Your task to perform on an android device: turn on sleep mode Image 0: 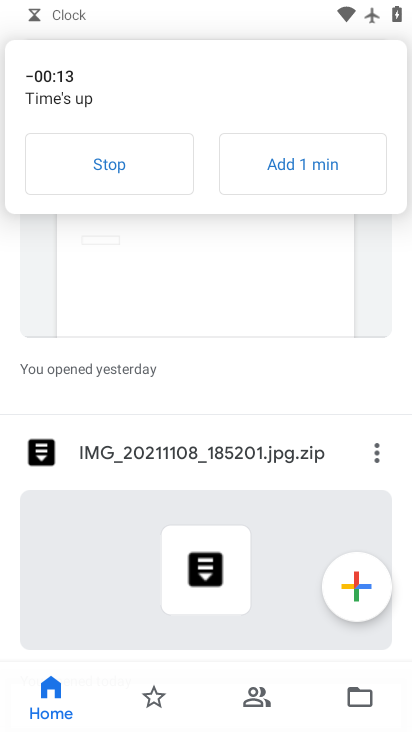
Step 0: press back button
Your task to perform on an android device: turn on sleep mode Image 1: 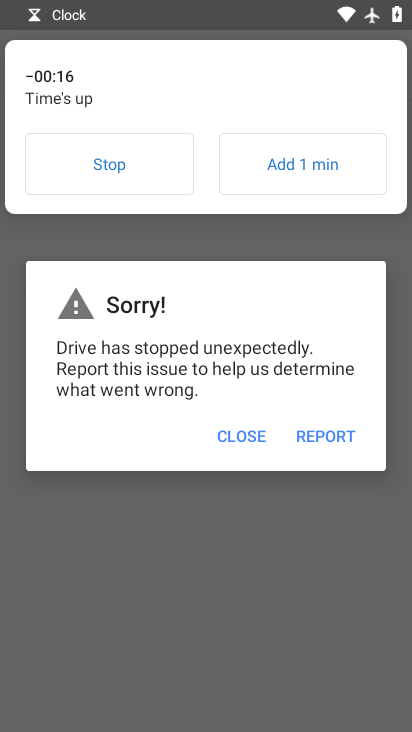
Step 1: press home button
Your task to perform on an android device: turn on sleep mode Image 2: 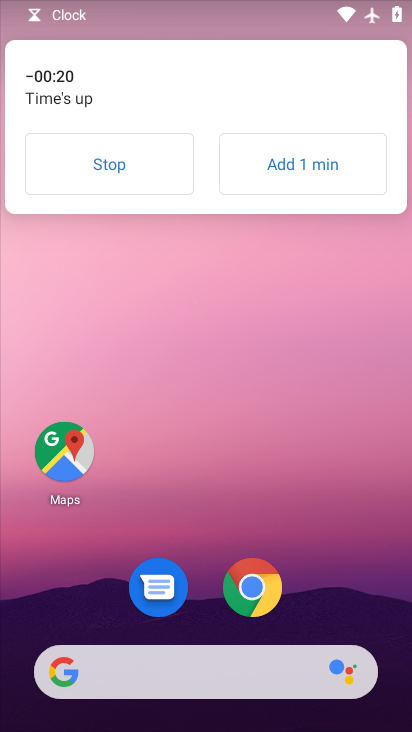
Step 2: click (96, 163)
Your task to perform on an android device: turn on sleep mode Image 3: 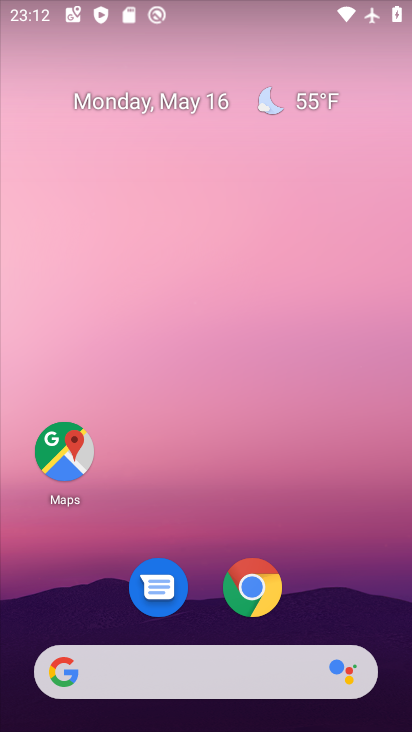
Step 3: drag from (342, 570) to (293, 15)
Your task to perform on an android device: turn on sleep mode Image 4: 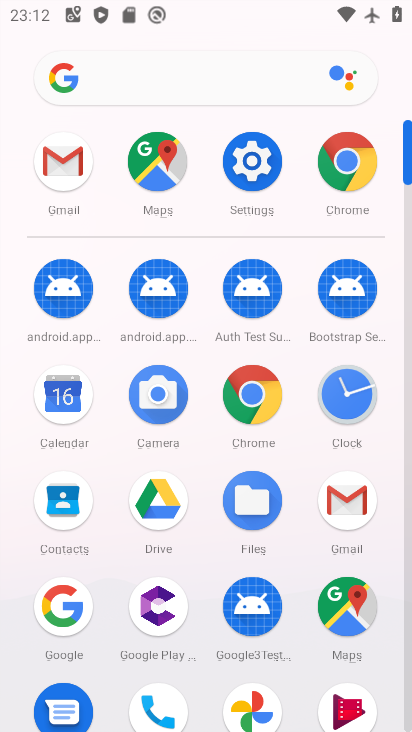
Step 4: click (254, 161)
Your task to perform on an android device: turn on sleep mode Image 5: 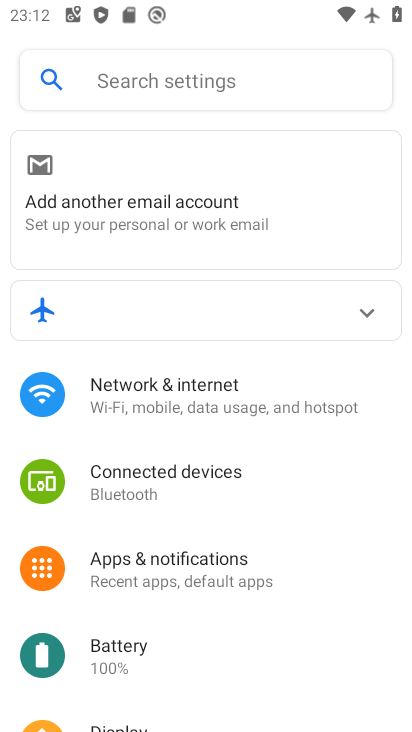
Step 5: drag from (274, 559) to (270, 178)
Your task to perform on an android device: turn on sleep mode Image 6: 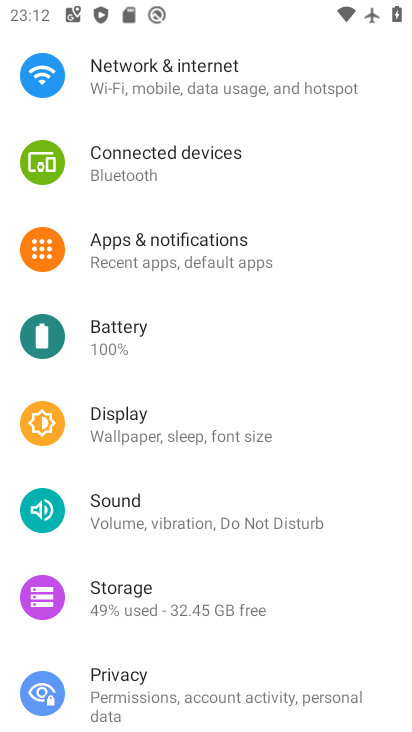
Step 6: click (216, 415)
Your task to perform on an android device: turn on sleep mode Image 7: 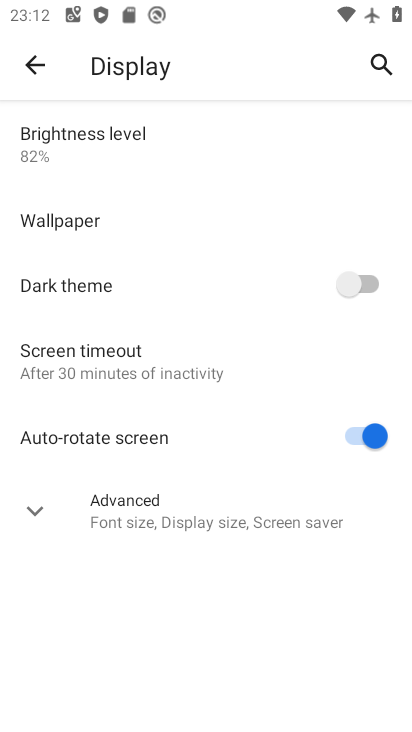
Step 7: click (81, 494)
Your task to perform on an android device: turn on sleep mode Image 8: 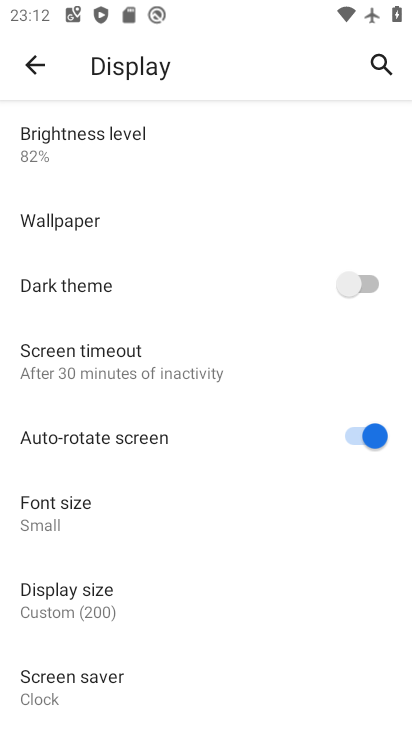
Step 8: task complete